Your task to perform on an android device: What's the latest technology news? Image 0: 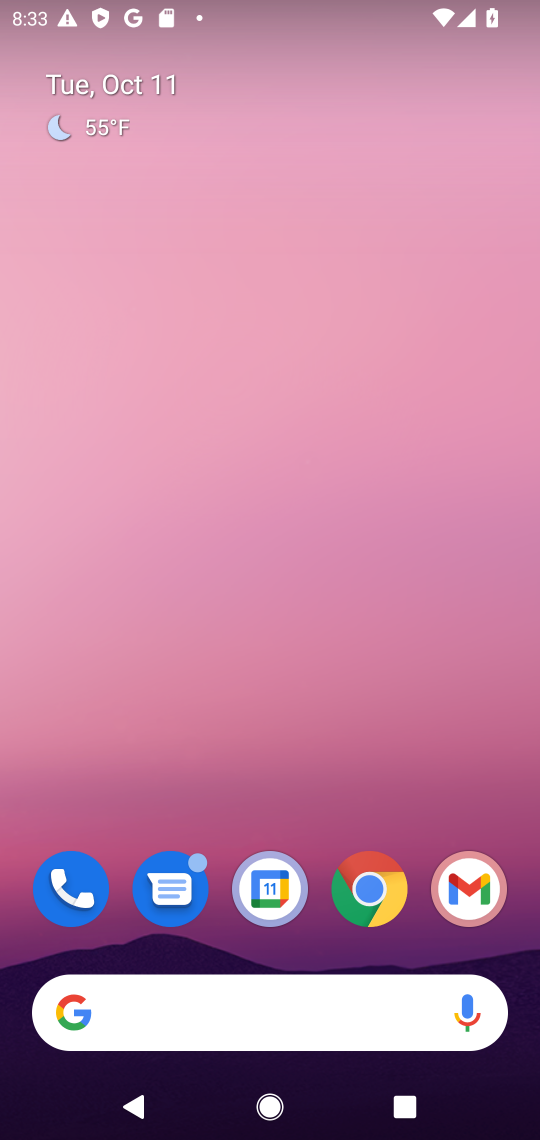
Step 0: click (148, 1012)
Your task to perform on an android device: What's the latest technology news? Image 1: 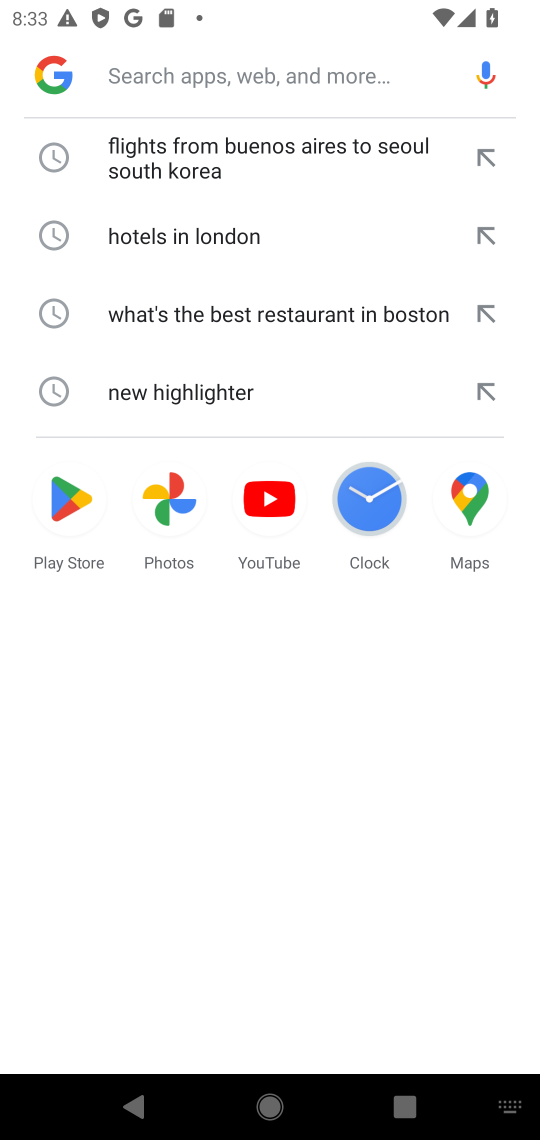
Step 1: click (178, 68)
Your task to perform on an android device: What's the latest technology news? Image 2: 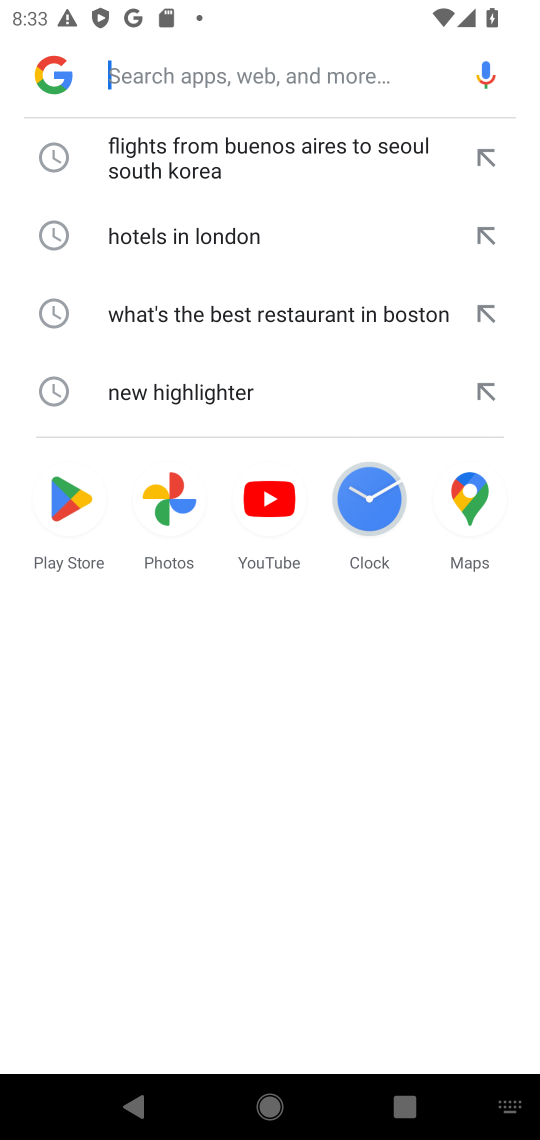
Step 2: type "What's the latest technology news"
Your task to perform on an android device: What's the latest technology news? Image 3: 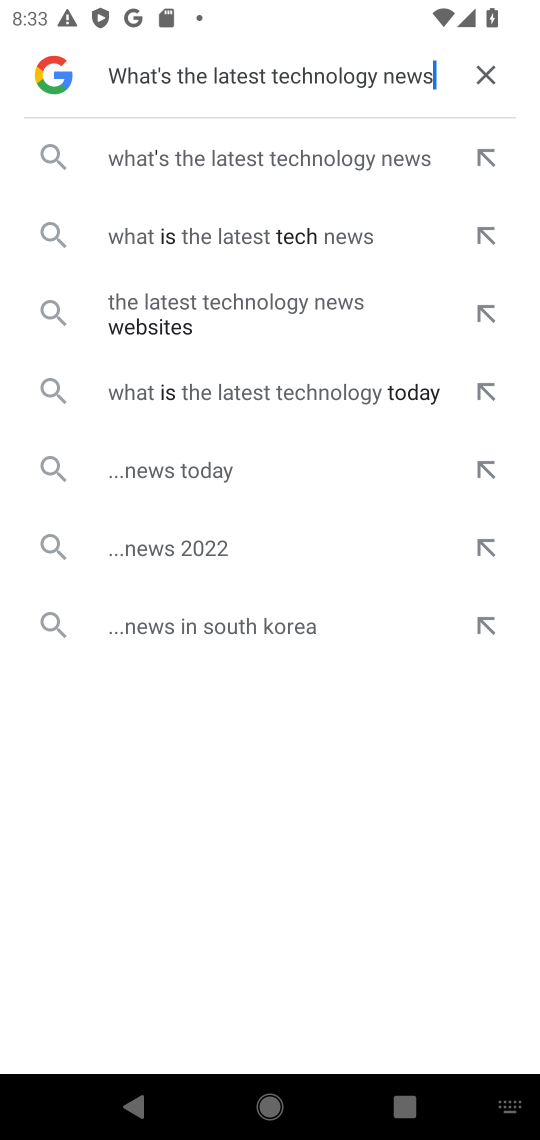
Step 3: click (209, 166)
Your task to perform on an android device: What's the latest technology news? Image 4: 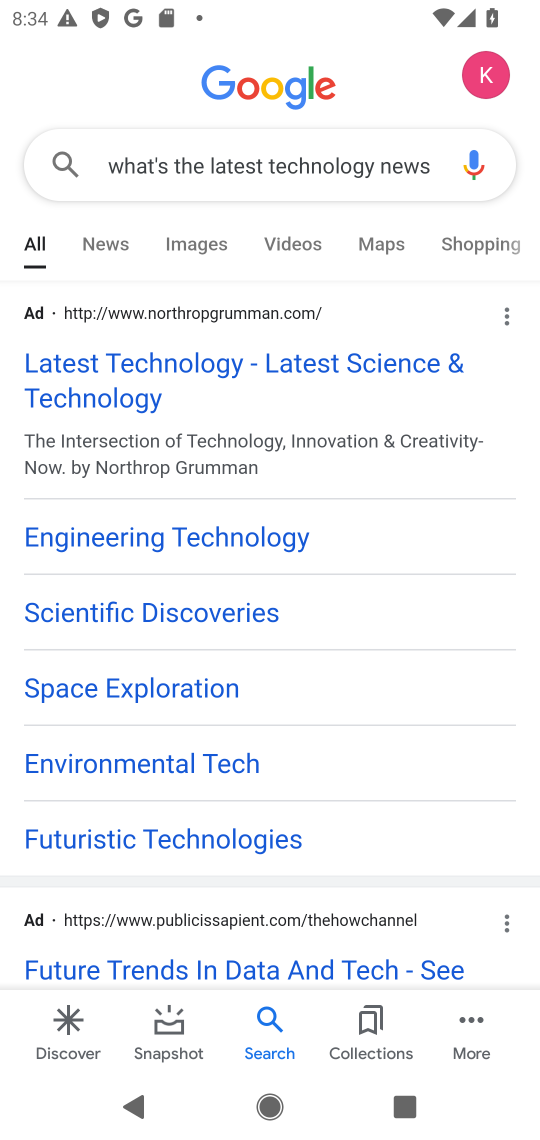
Step 4: task complete